Your task to perform on an android device: toggle javascript in the chrome app Image 0: 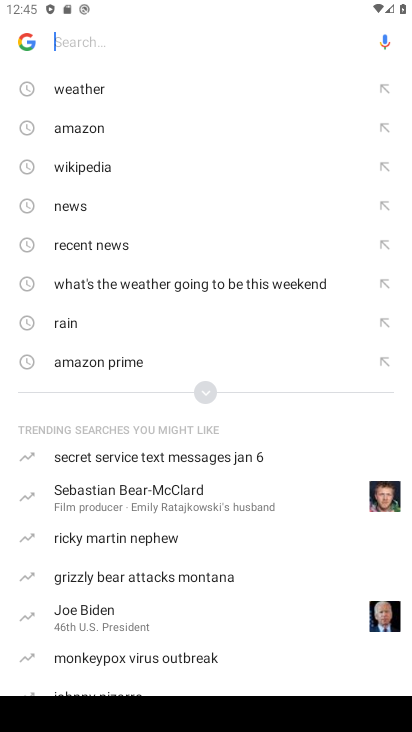
Step 0: press home button
Your task to perform on an android device: toggle javascript in the chrome app Image 1: 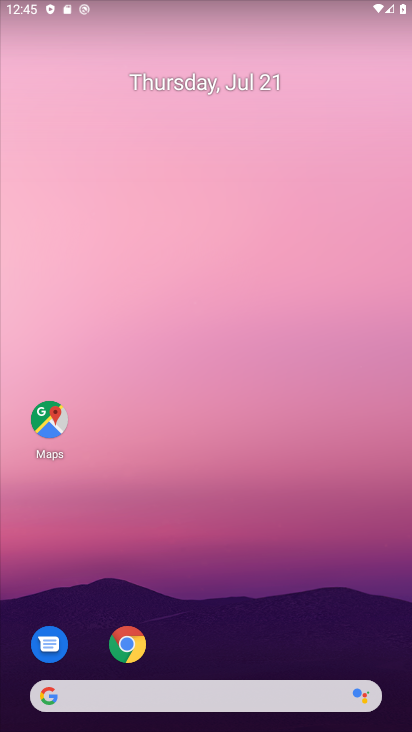
Step 1: drag from (265, 565) to (274, 94)
Your task to perform on an android device: toggle javascript in the chrome app Image 2: 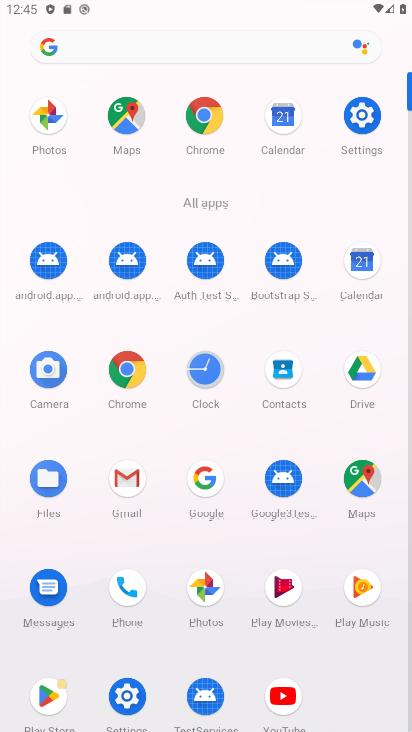
Step 2: click (123, 362)
Your task to perform on an android device: toggle javascript in the chrome app Image 3: 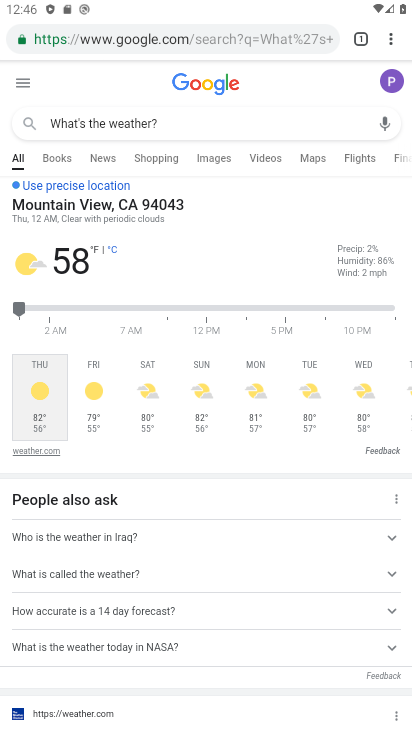
Step 3: drag from (396, 37) to (272, 426)
Your task to perform on an android device: toggle javascript in the chrome app Image 4: 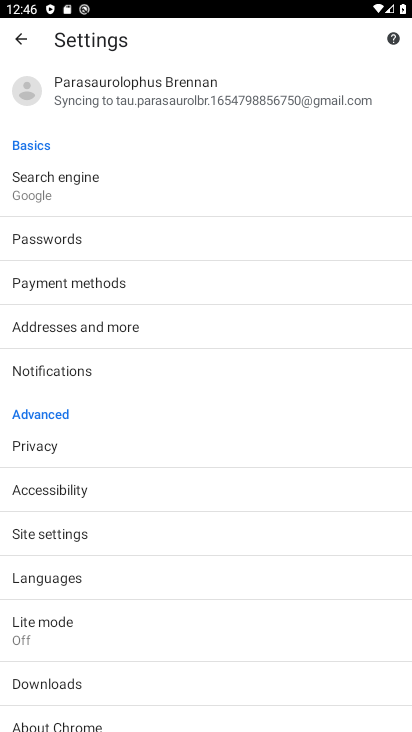
Step 4: drag from (225, 625) to (272, 241)
Your task to perform on an android device: toggle javascript in the chrome app Image 5: 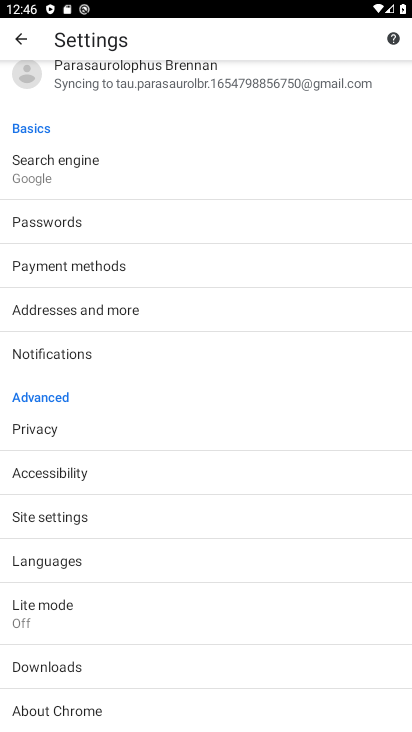
Step 5: click (46, 522)
Your task to perform on an android device: toggle javascript in the chrome app Image 6: 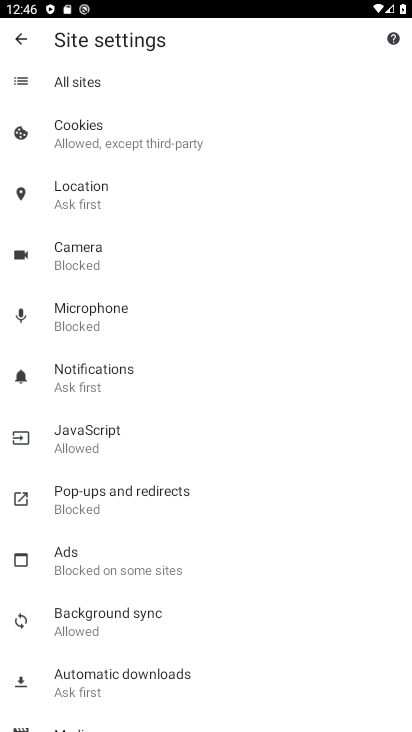
Step 6: click (73, 437)
Your task to perform on an android device: toggle javascript in the chrome app Image 7: 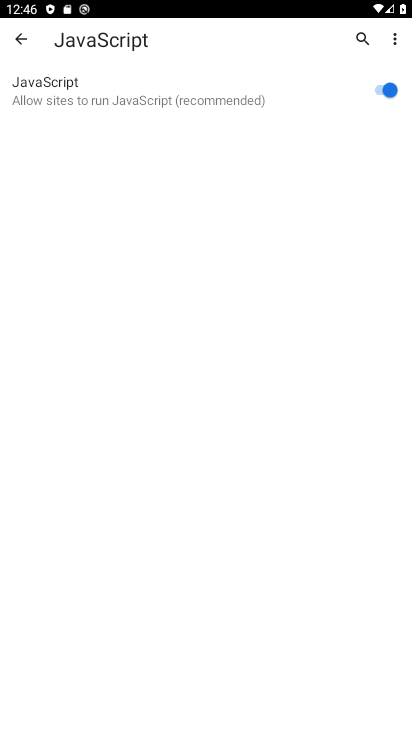
Step 7: click (294, 92)
Your task to perform on an android device: toggle javascript in the chrome app Image 8: 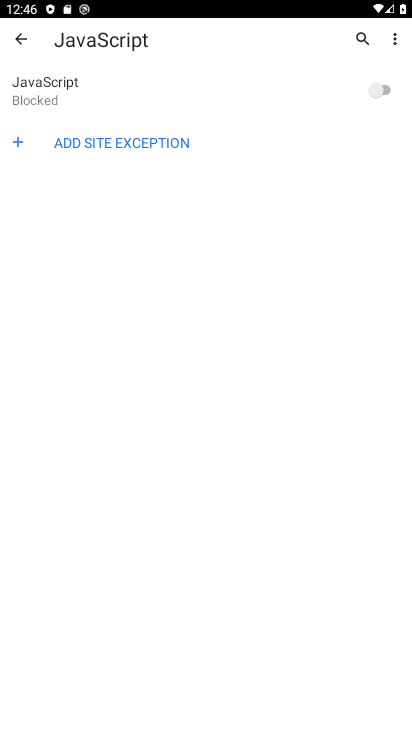
Step 8: task complete